Your task to perform on an android device: Open calendar and show me the fourth week of next month Image 0: 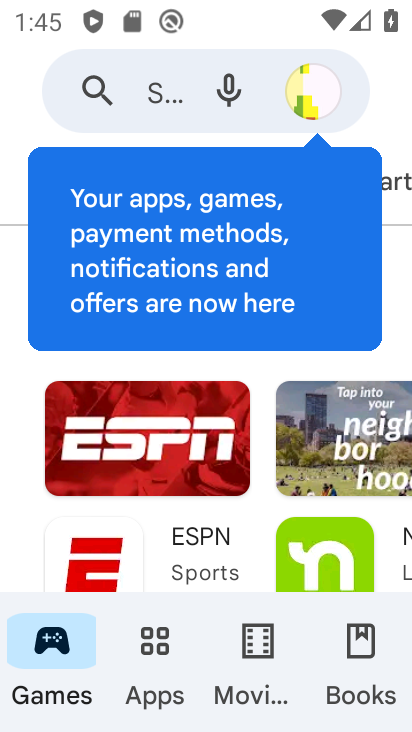
Step 0: press home button
Your task to perform on an android device: Open calendar and show me the fourth week of next month Image 1: 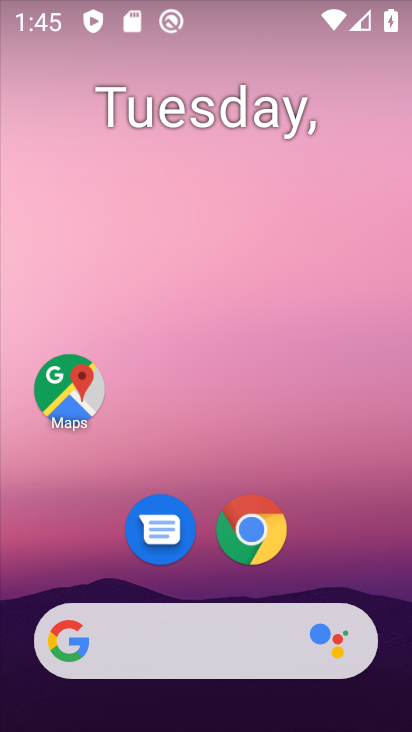
Step 1: drag from (400, 611) to (220, 73)
Your task to perform on an android device: Open calendar and show me the fourth week of next month Image 2: 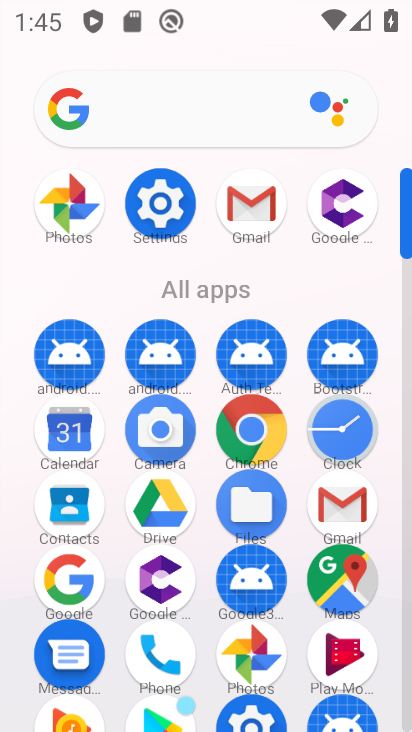
Step 2: click (82, 444)
Your task to perform on an android device: Open calendar and show me the fourth week of next month Image 3: 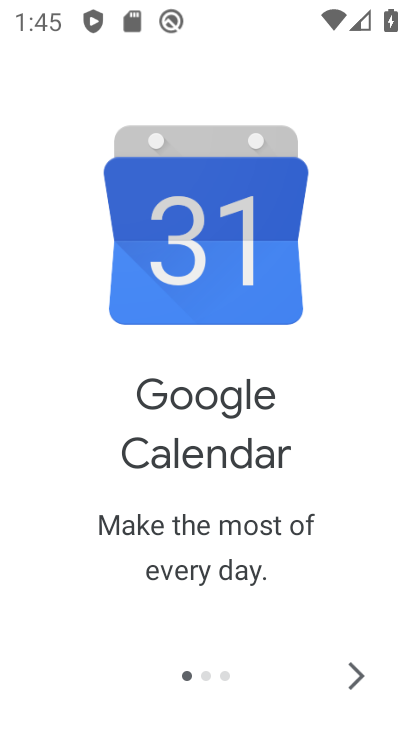
Step 3: click (347, 675)
Your task to perform on an android device: Open calendar and show me the fourth week of next month Image 4: 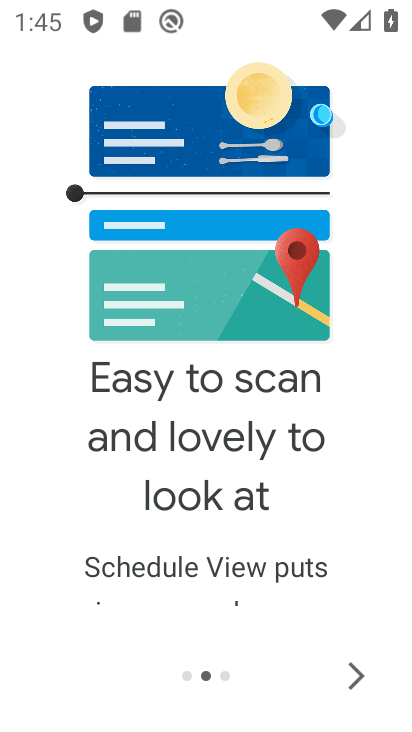
Step 4: click (347, 675)
Your task to perform on an android device: Open calendar and show me the fourth week of next month Image 5: 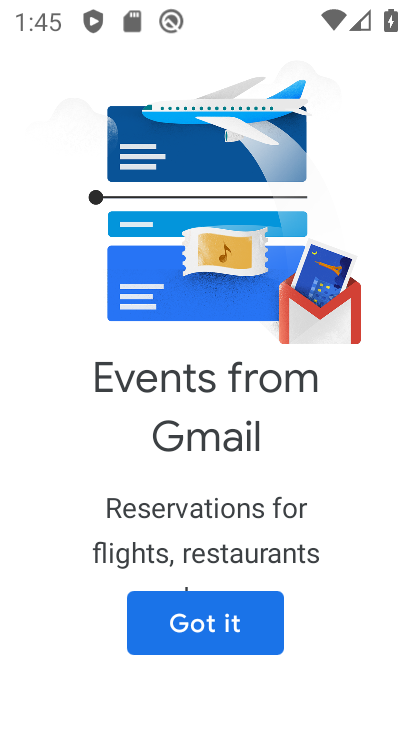
Step 5: click (212, 637)
Your task to perform on an android device: Open calendar and show me the fourth week of next month Image 6: 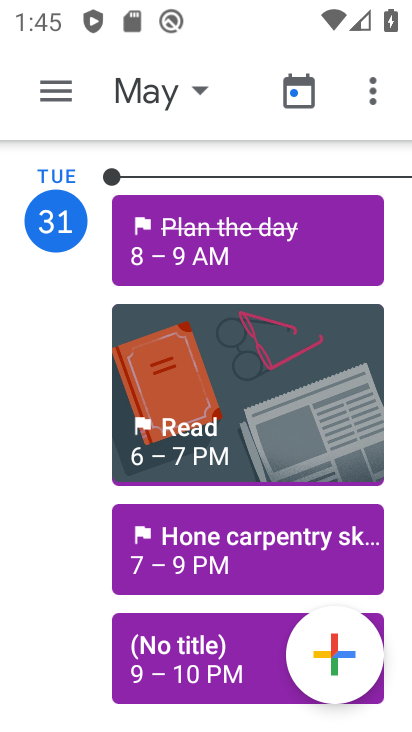
Step 6: click (147, 101)
Your task to perform on an android device: Open calendar and show me the fourth week of next month Image 7: 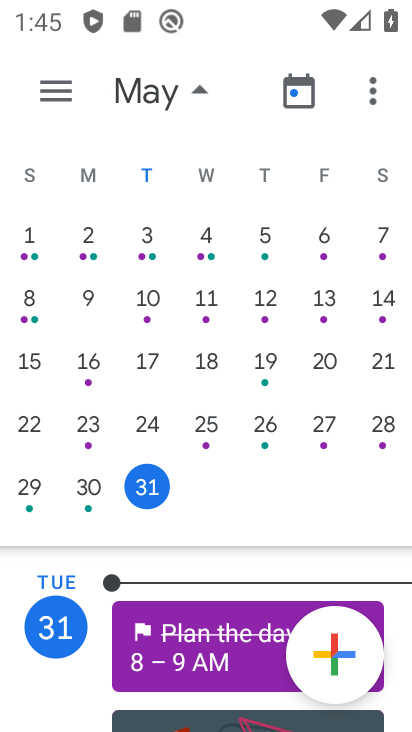
Step 7: click (38, 100)
Your task to perform on an android device: Open calendar and show me the fourth week of next month Image 8: 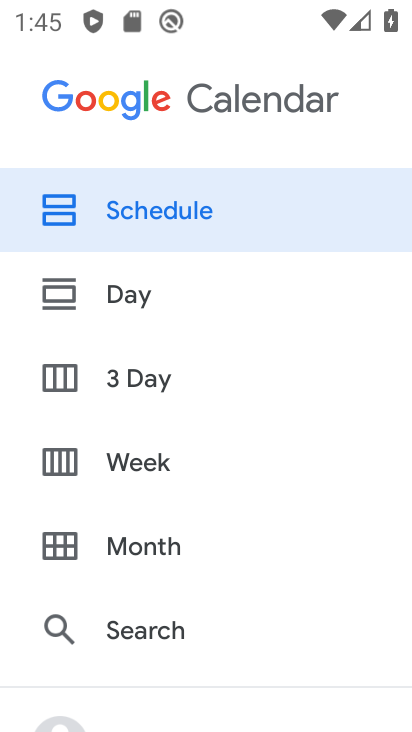
Step 8: click (158, 468)
Your task to perform on an android device: Open calendar and show me the fourth week of next month Image 9: 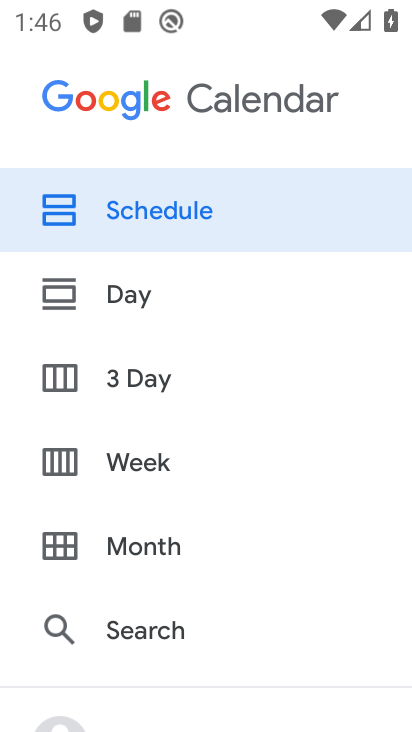
Step 9: click (133, 470)
Your task to perform on an android device: Open calendar and show me the fourth week of next month Image 10: 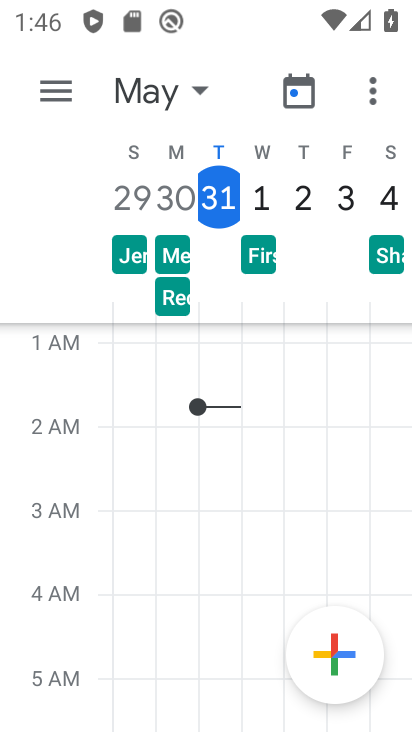
Step 10: click (168, 72)
Your task to perform on an android device: Open calendar and show me the fourth week of next month Image 11: 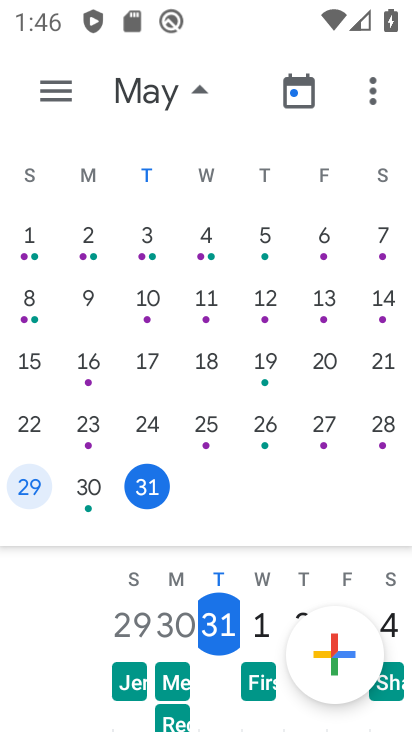
Step 11: drag from (391, 350) to (30, 368)
Your task to perform on an android device: Open calendar and show me the fourth week of next month Image 12: 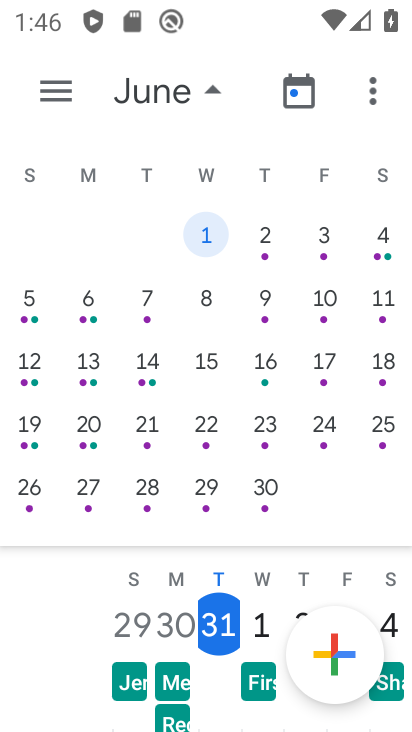
Step 12: click (216, 425)
Your task to perform on an android device: Open calendar and show me the fourth week of next month Image 13: 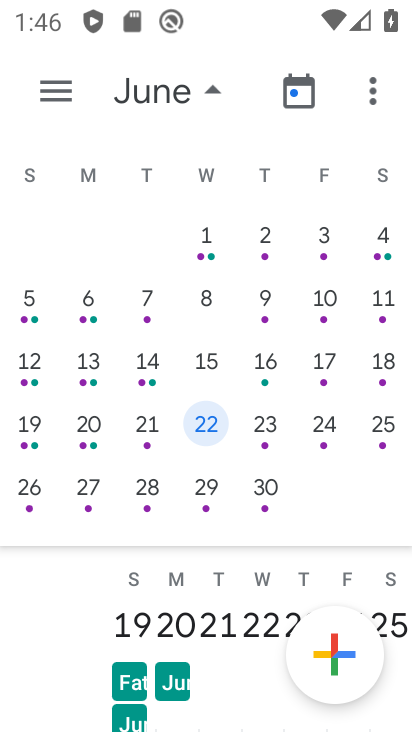
Step 13: click (173, 79)
Your task to perform on an android device: Open calendar and show me the fourth week of next month Image 14: 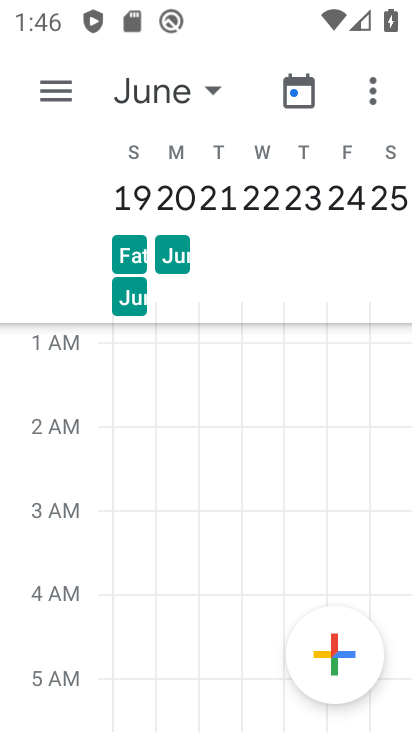
Step 14: task complete